Your task to perform on an android device: Open the map Image 0: 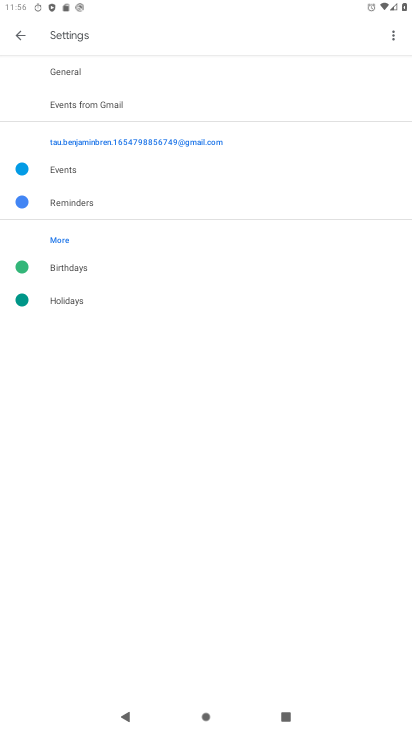
Step 0: press home button
Your task to perform on an android device: Open the map Image 1: 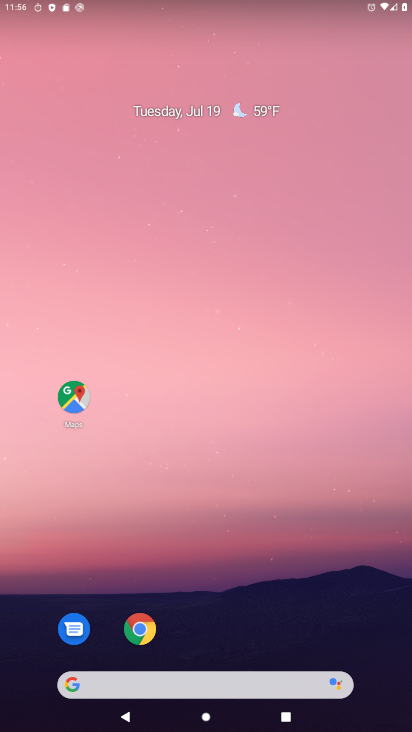
Step 1: drag from (315, 626) to (236, 10)
Your task to perform on an android device: Open the map Image 2: 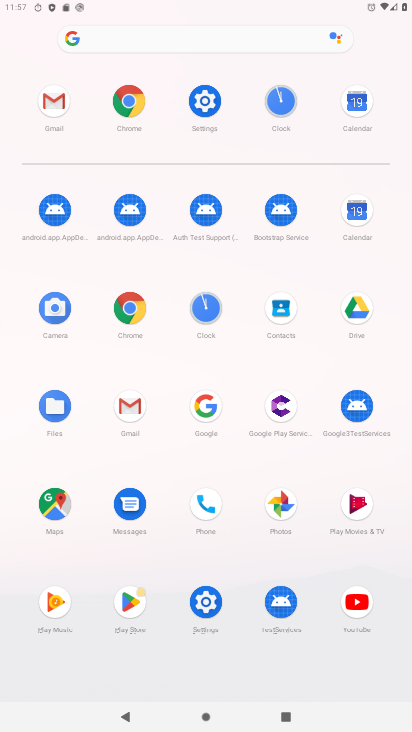
Step 2: click (54, 499)
Your task to perform on an android device: Open the map Image 3: 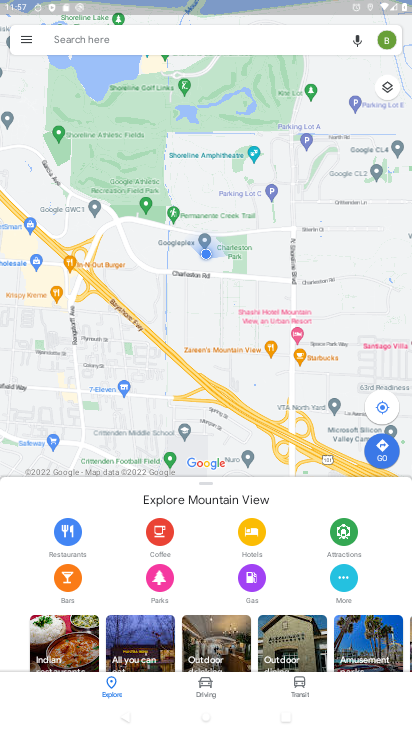
Step 3: task complete